Your task to perform on an android device: change notification settings in the gmail app Image 0: 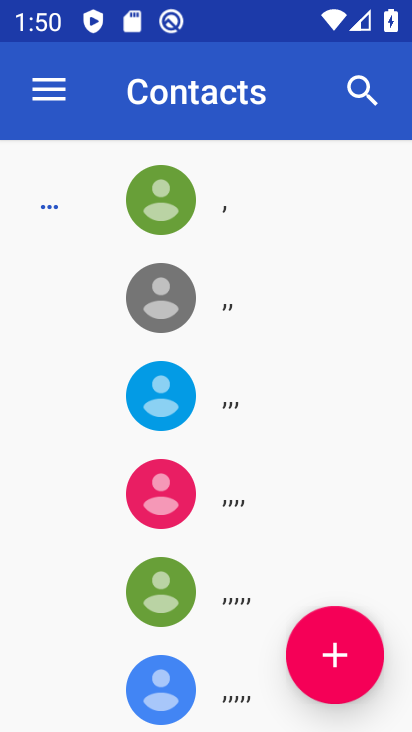
Step 0: press home button
Your task to perform on an android device: change notification settings in the gmail app Image 1: 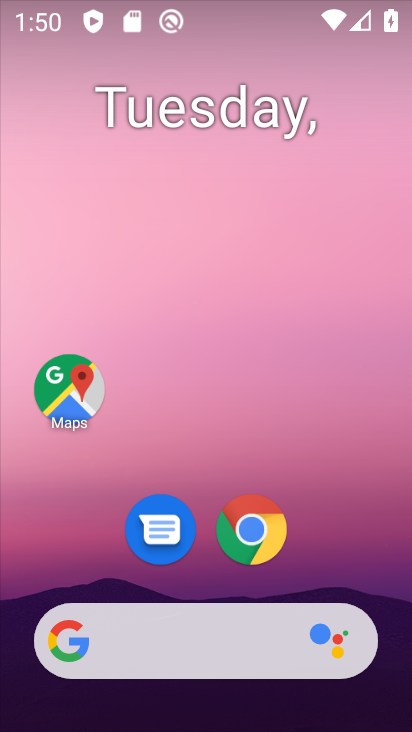
Step 1: drag from (377, 612) to (242, 192)
Your task to perform on an android device: change notification settings in the gmail app Image 2: 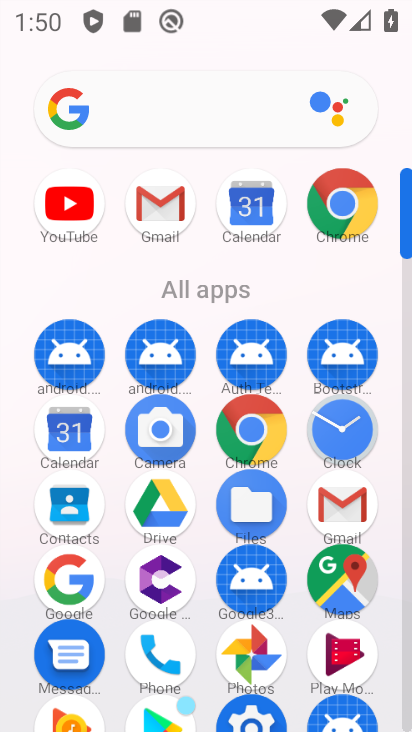
Step 2: click (158, 218)
Your task to perform on an android device: change notification settings in the gmail app Image 3: 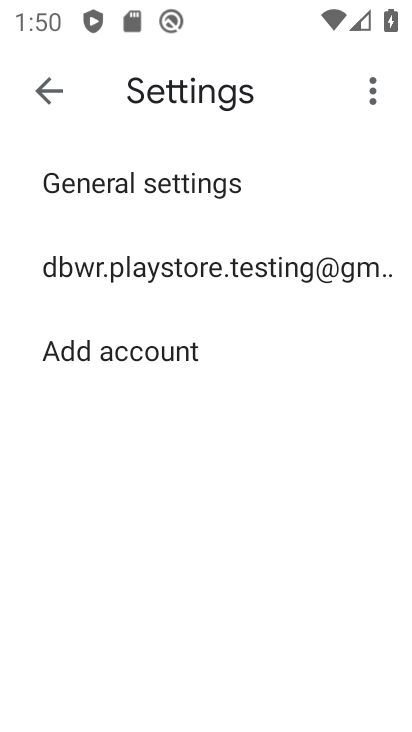
Step 3: click (170, 253)
Your task to perform on an android device: change notification settings in the gmail app Image 4: 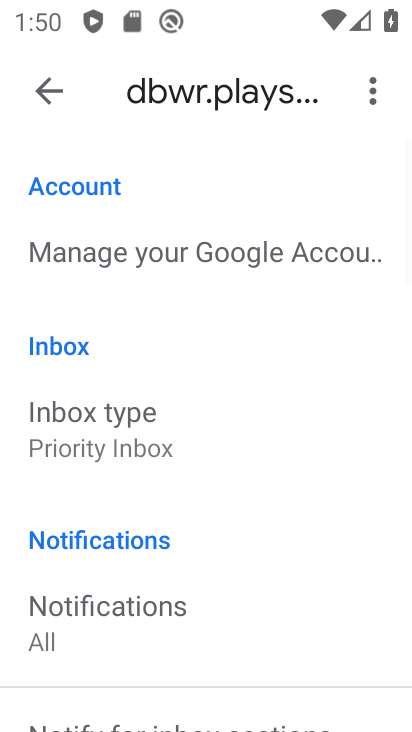
Step 4: drag from (205, 610) to (182, 195)
Your task to perform on an android device: change notification settings in the gmail app Image 5: 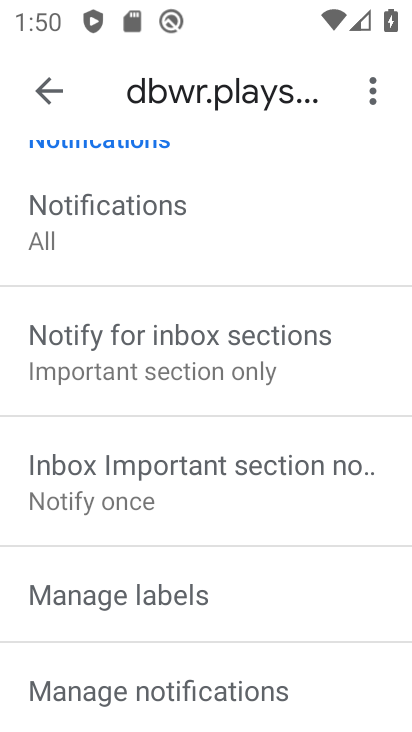
Step 5: drag from (228, 624) to (188, 227)
Your task to perform on an android device: change notification settings in the gmail app Image 6: 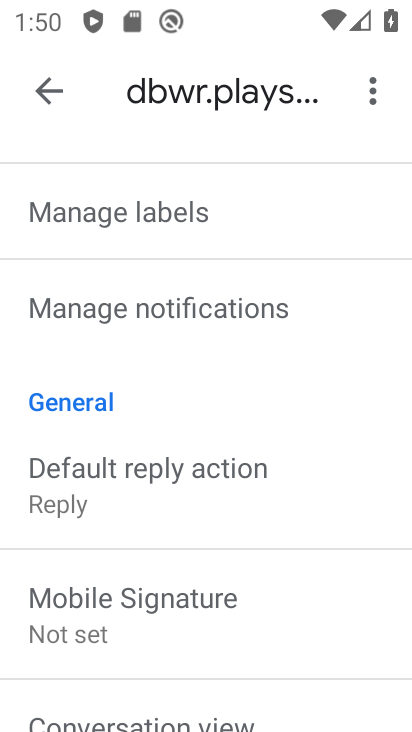
Step 6: click (199, 299)
Your task to perform on an android device: change notification settings in the gmail app Image 7: 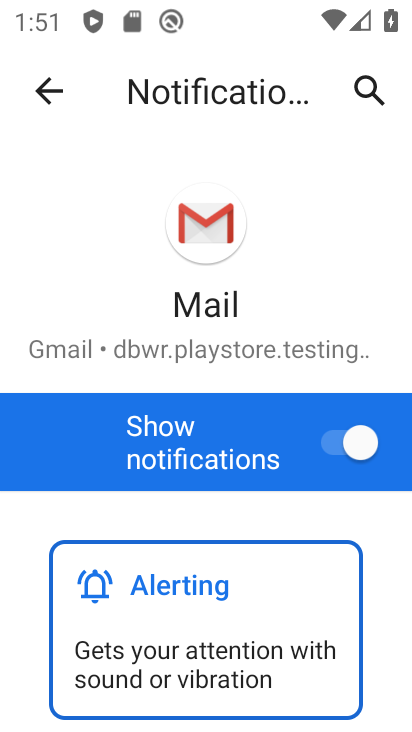
Step 7: drag from (390, 671) to (301, 244)
Your task to perform on an android device: change notification settings in the gmail app Image 8: 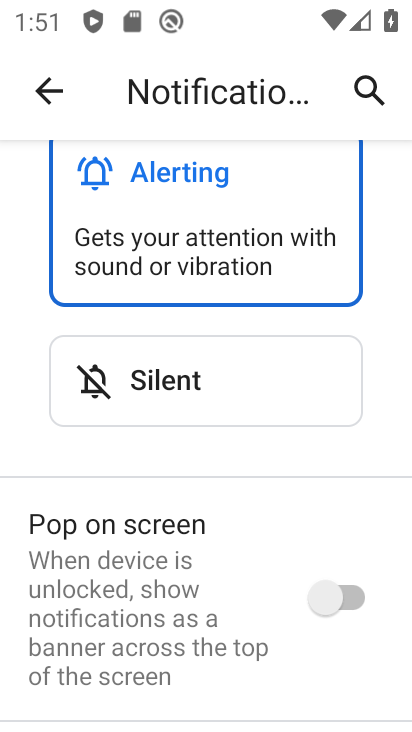
Step 8: click (247, 415)
Your task to perform on an android device: change notification settings in the gmail app Image 9: 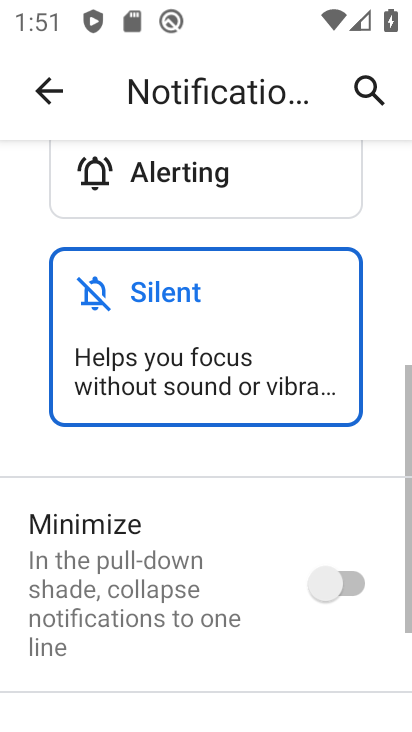
Step 9: click (342, 590)
Your task to perform on an android device: change notification settings in the gmail app Image 10: 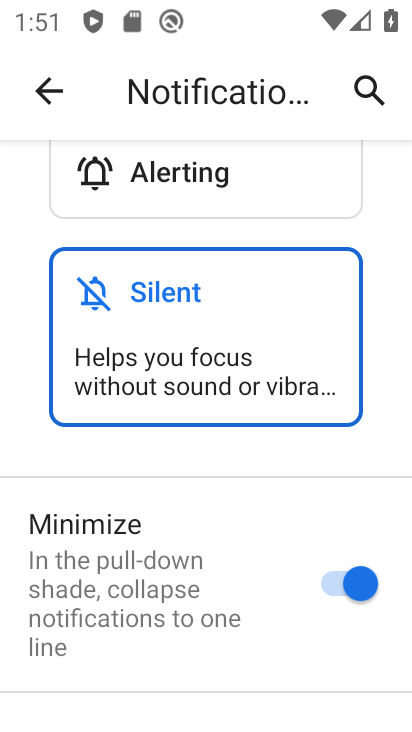
Step 10: task complete